Your task to perform on an android device: Find coffee shops on Maps Image 0: 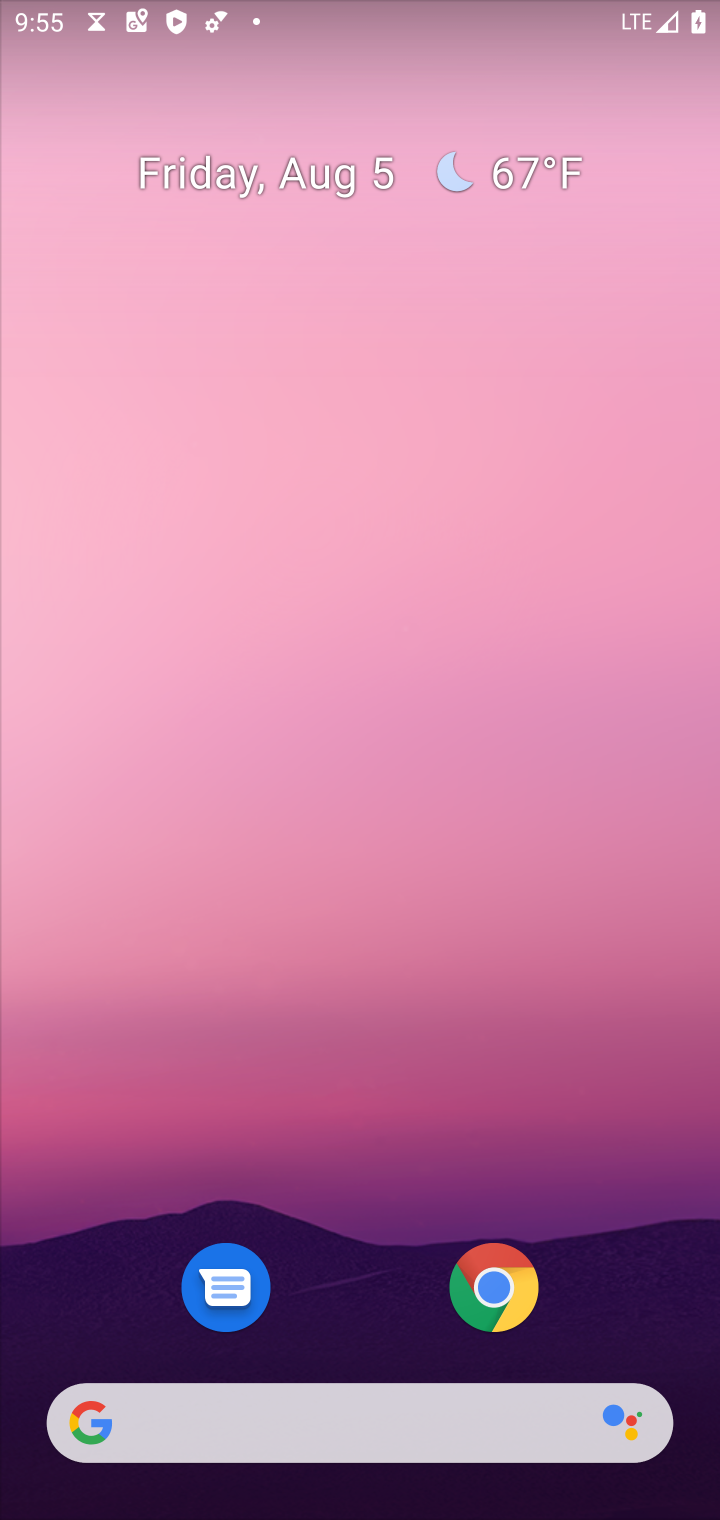
Step 0: drag from (329, 1199) to (332, 259)
Your task to perform on an android device: Find coffee shops on Maps Image 1: 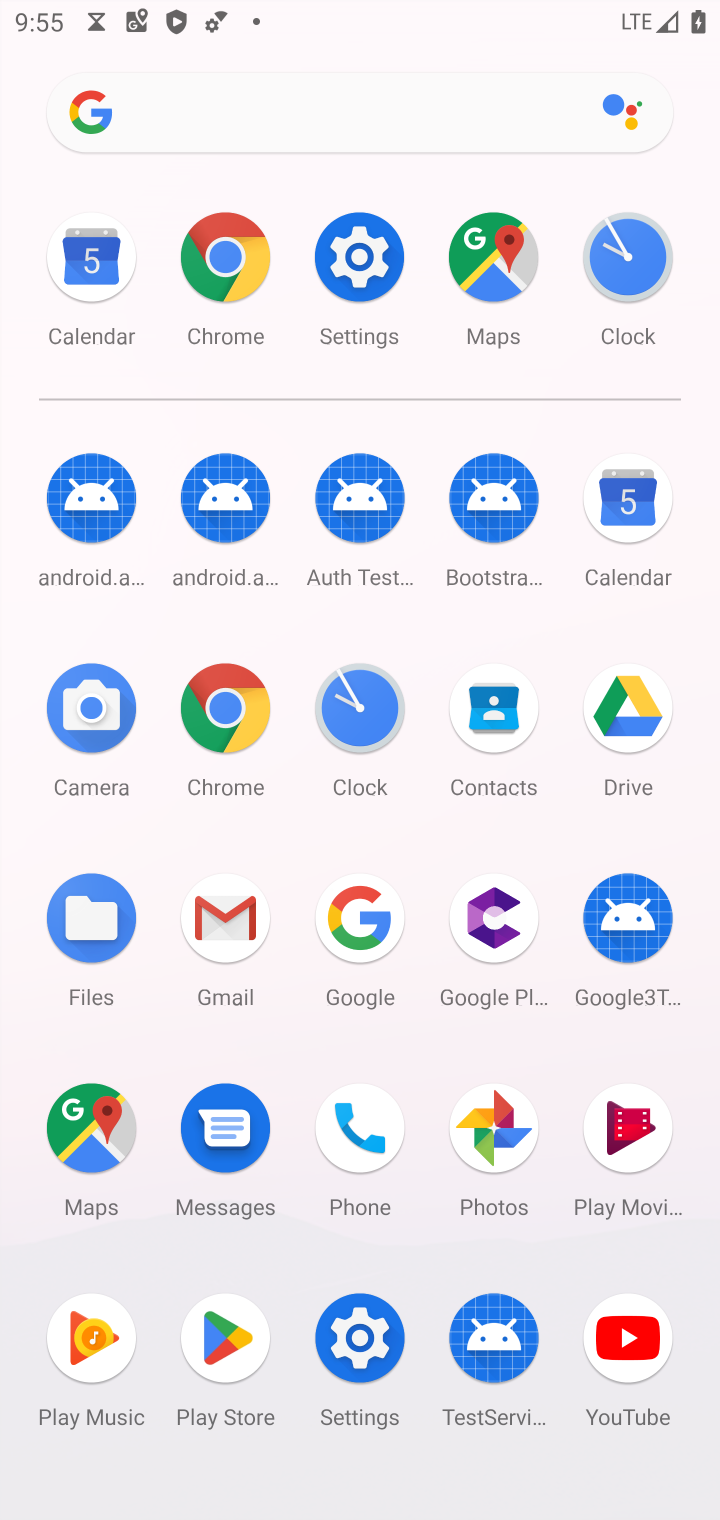
Step 1: click (88, 1138)
Your task to perform on an android device: Find coffee shops on Maps Image 2: 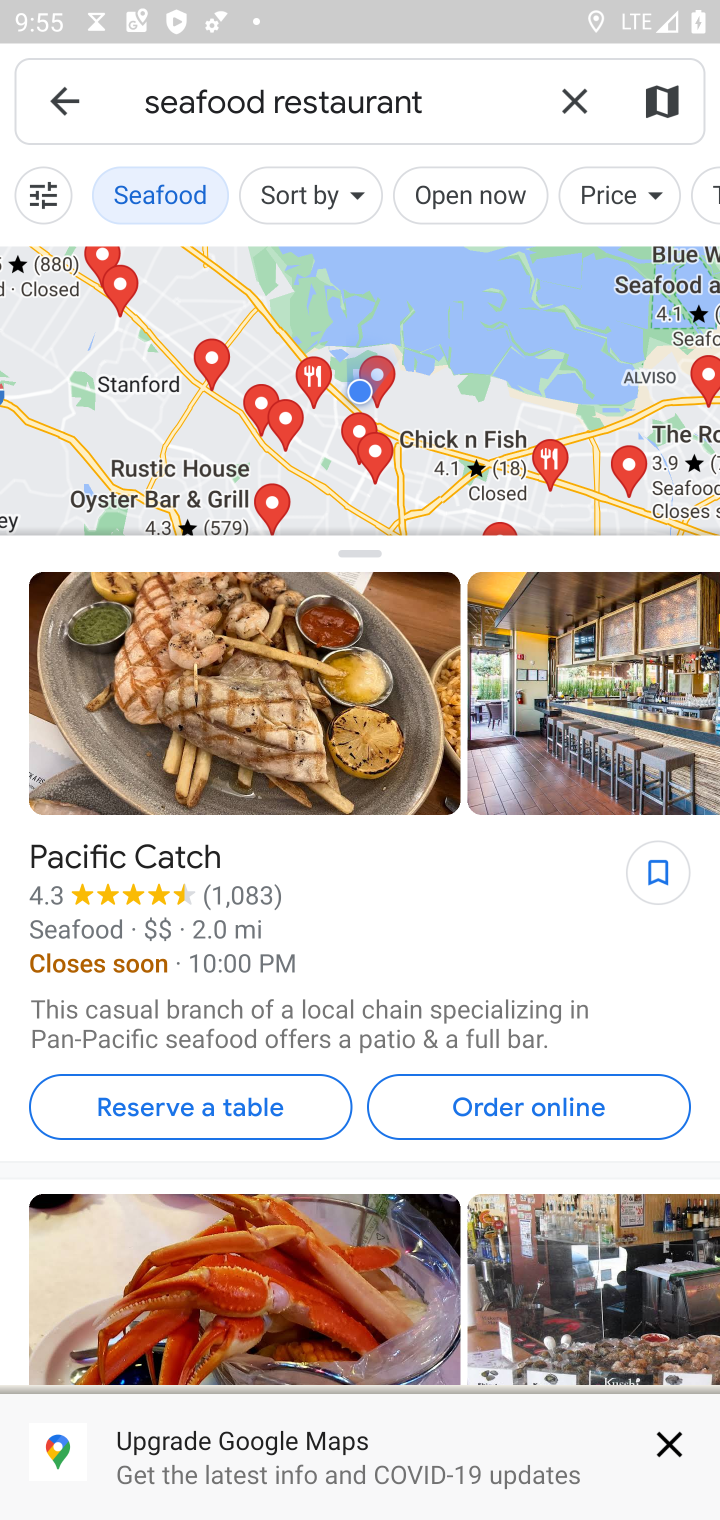
Step 2: click (580, 108)
Your task to perform on an android device: Find coffee shops on Maps Image 3: 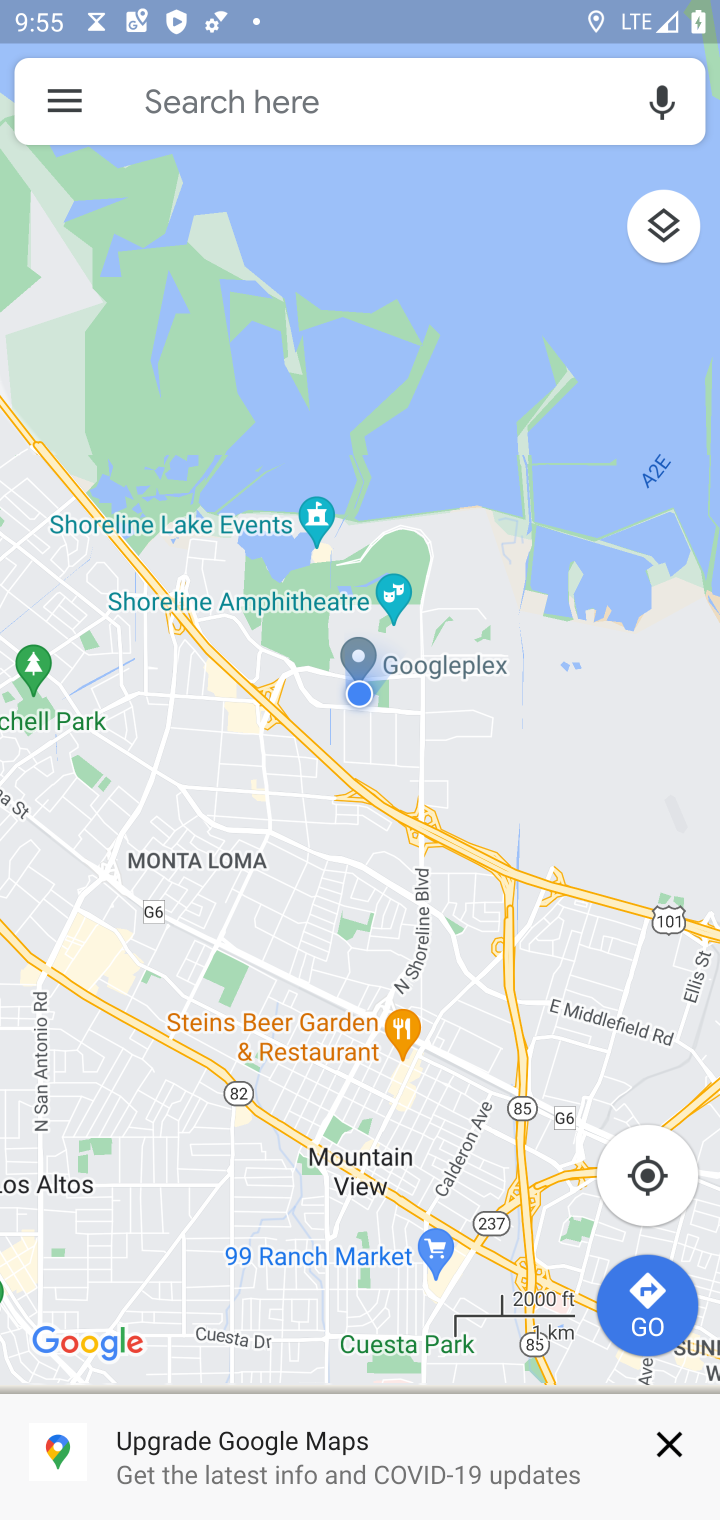
Step 3: click (375, 101)
Your task to perform on an android device: Find coffee shops on Maps Image 4: 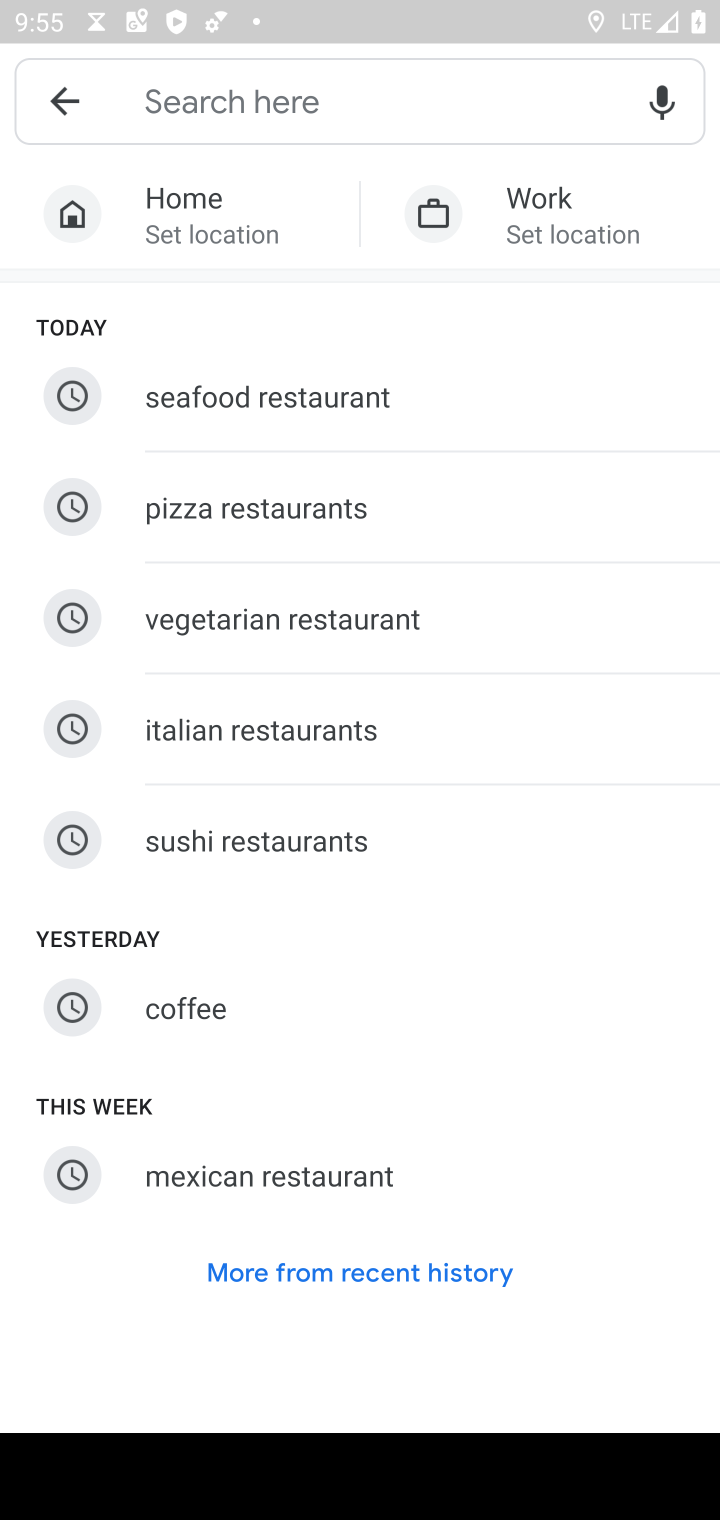
Step 4: type "coffee shops"
Your task to perform on an android device: Find coffee shops on Maps Image 5: 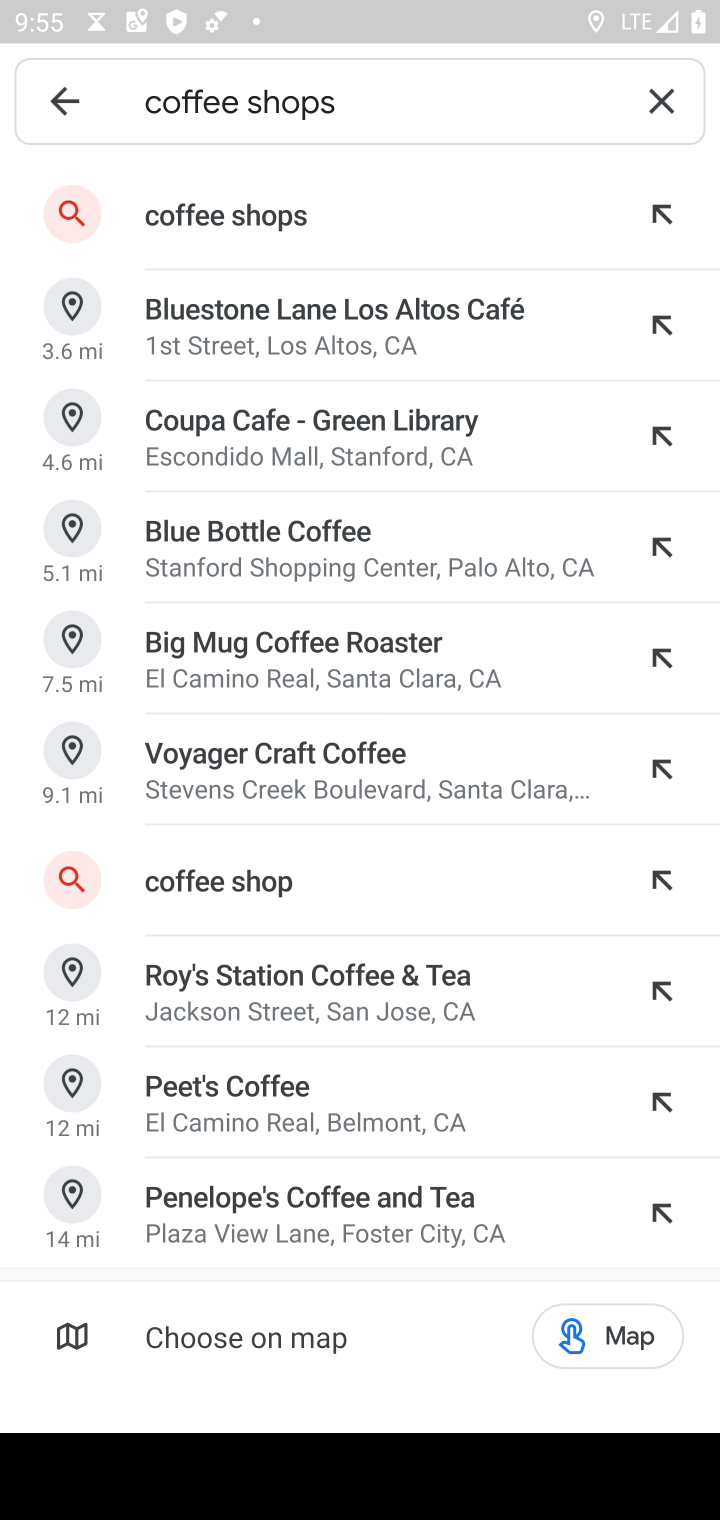
Step 5: click (237, 214)
Your task to perform on an android device: Find coffee shops on Maps Image 6: 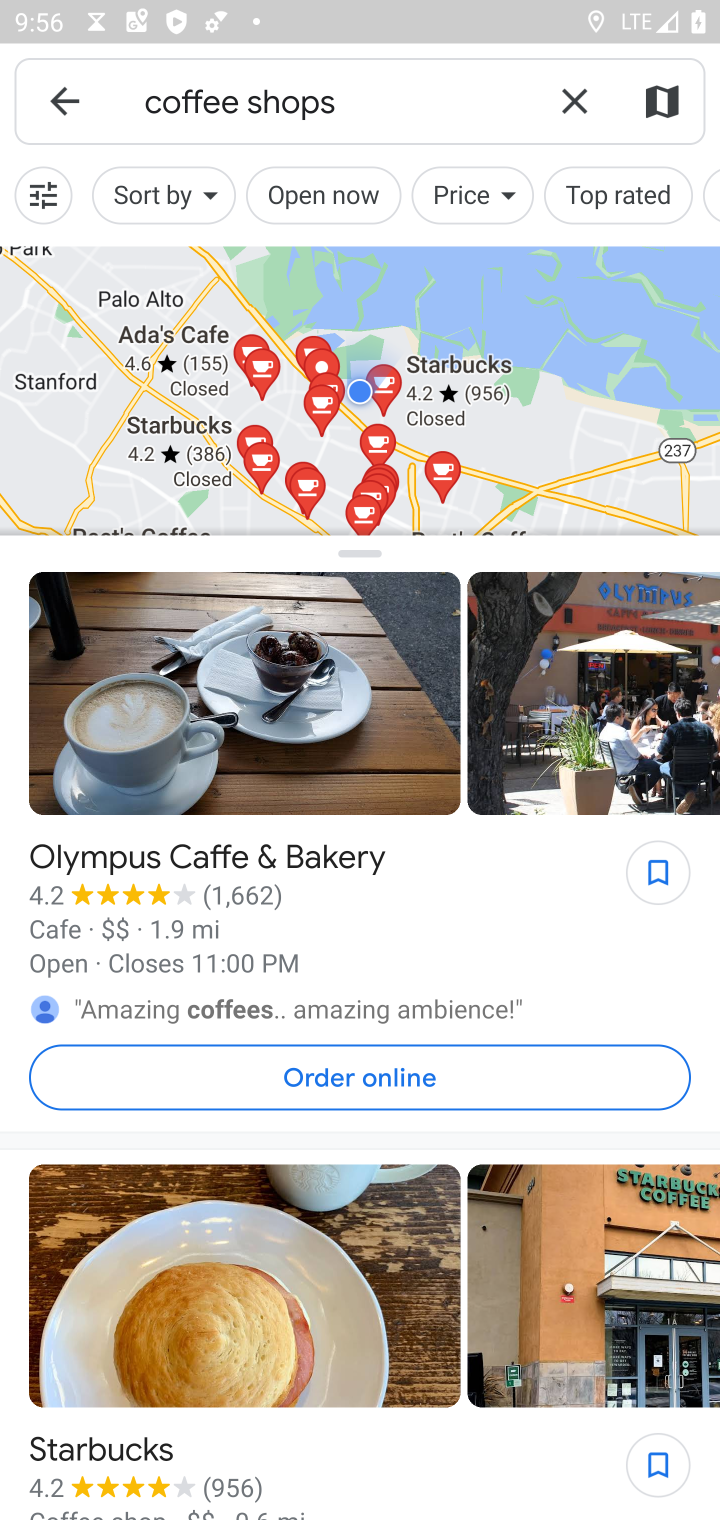
Step 6: task complete